Your task to perform on an android device: Search for Italian restaurants on Maps Image 0: 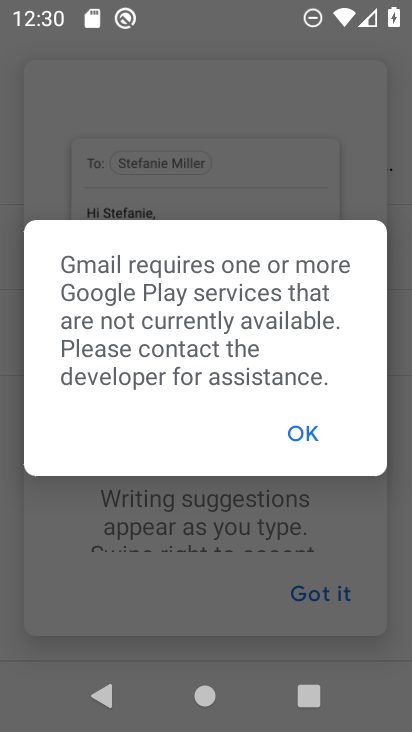
Step 0: press home button
Your task to perform on an android device: Search for Italian restaurants on Maps Image 1: 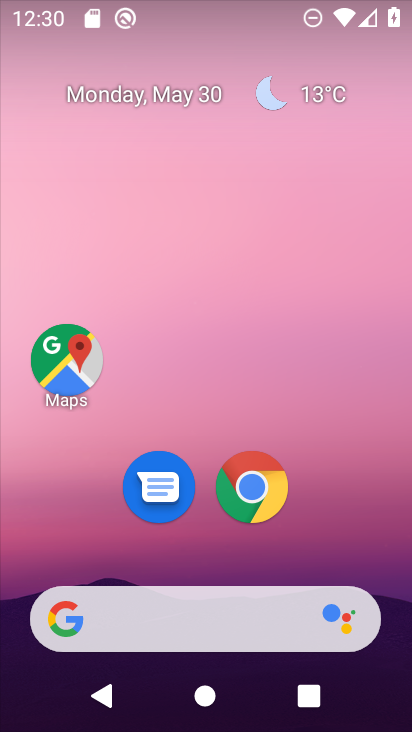
Step 1: click (61, 353)
Your task to perform on an android device: Search for Italian restaurants on Maps Image 2: 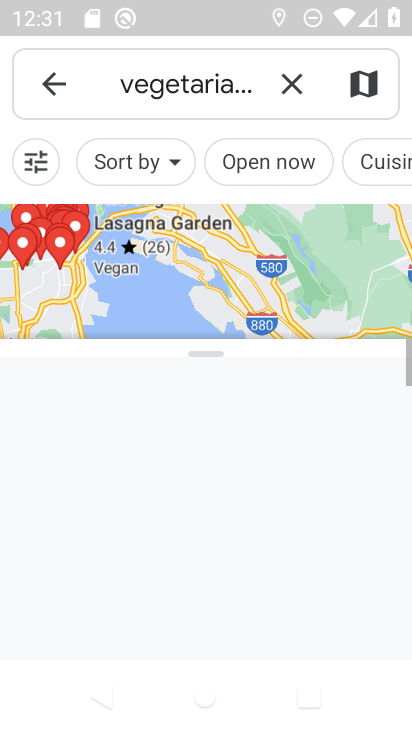
Step 2: click (280, 86)
Your task to perform on an android device: Search for Italian restaurants on Maps Image 3: 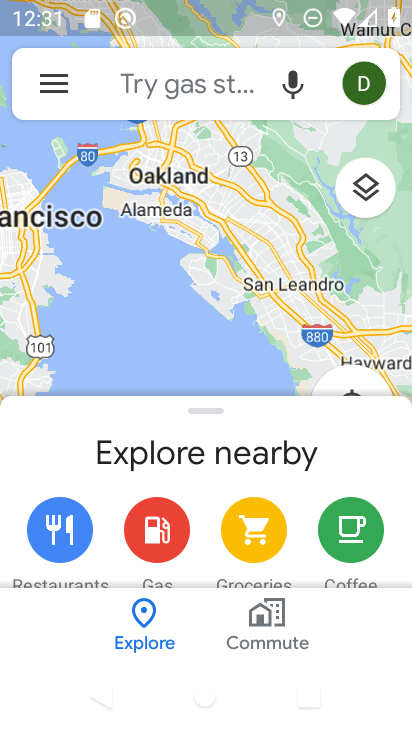
Step 3: click (145, 81)
Your task to perform on an android device: Search for Italian restaurants on Maps Image 4: 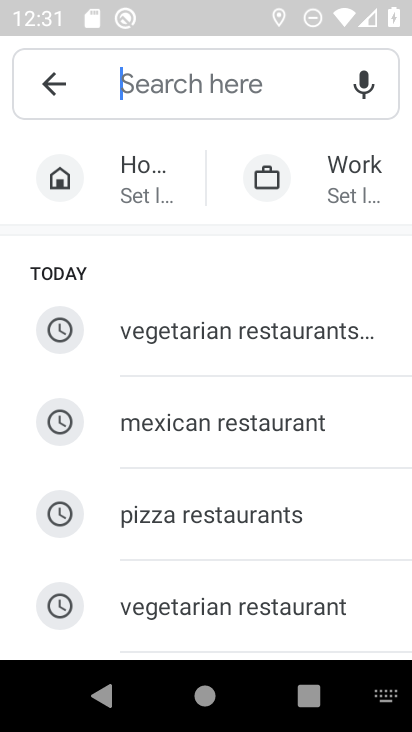
Step 4: type " Italian restaurants"
Your task to perform on an android device: Search for Italian restaurants on Maps Image 5: 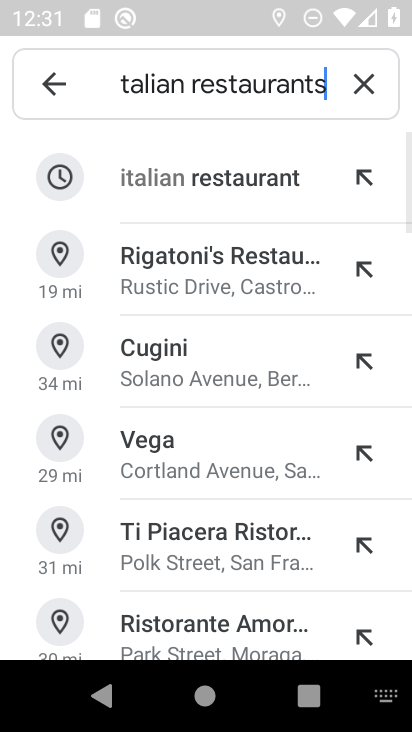
Step 5: click (168, 186)
Your task to perform on an android device: Search for Italian restaurants on Maps Image 6: 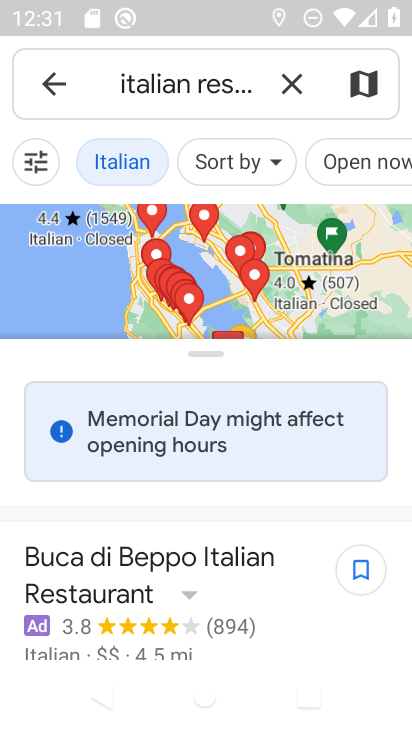
Step 6: task complete